Your task to perform on an android device: turn off airplane mode Image 0: 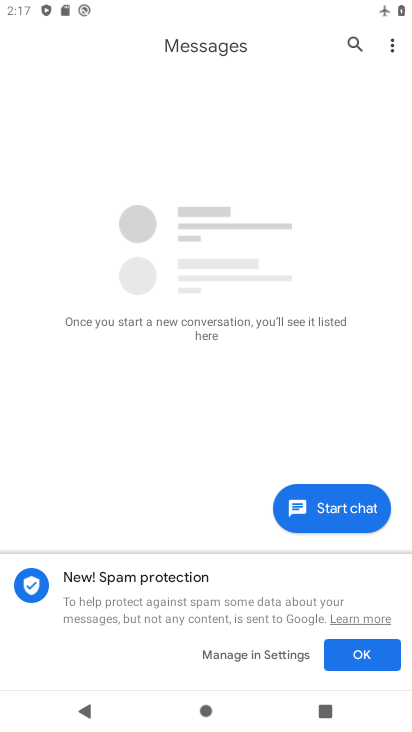
Step 0: press home button
Your task to perform on an android device: turn off airplane mode Image 1: 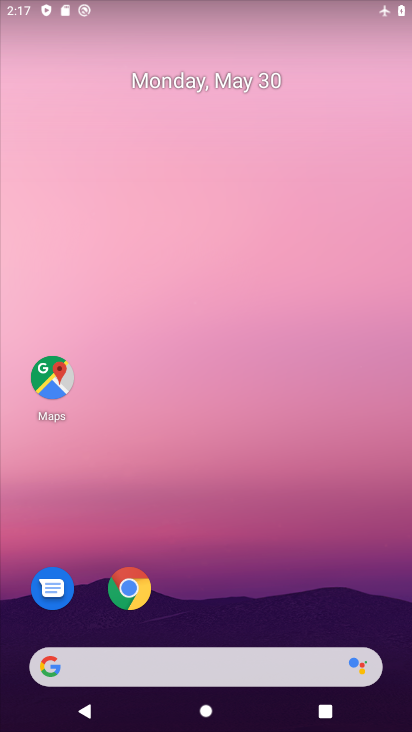
Step 1: drag from (190, 602) to (226, 277)
Your task to perform on an android device: turn off airplane mode Image 2: 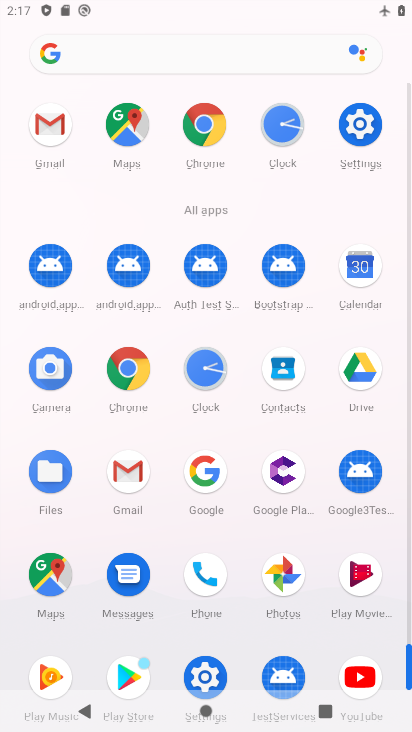
Step 2: click (354, 123)
Your task to perform on an android device: turn off airplane mode Image 3: 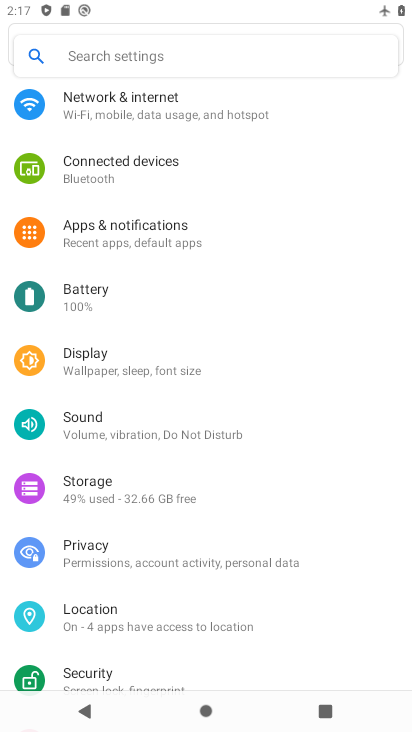
Step 3: click (144, 92)
Your task to perform on an android device: turn off airplane mode Image 4: 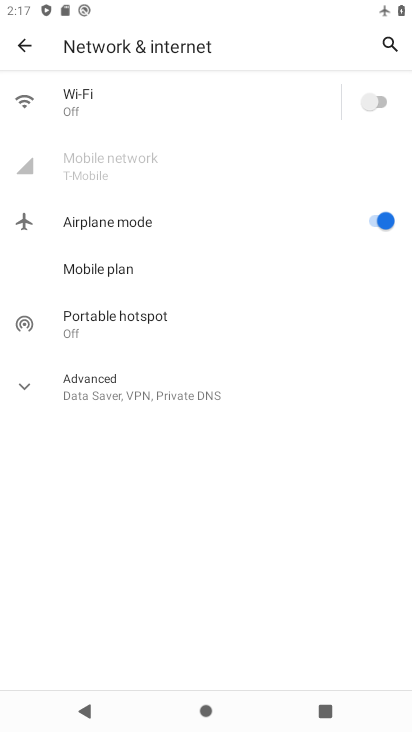
Step 4: click (371, 216)
Your task to perform on an android device: turn off airplane mode Image 5: 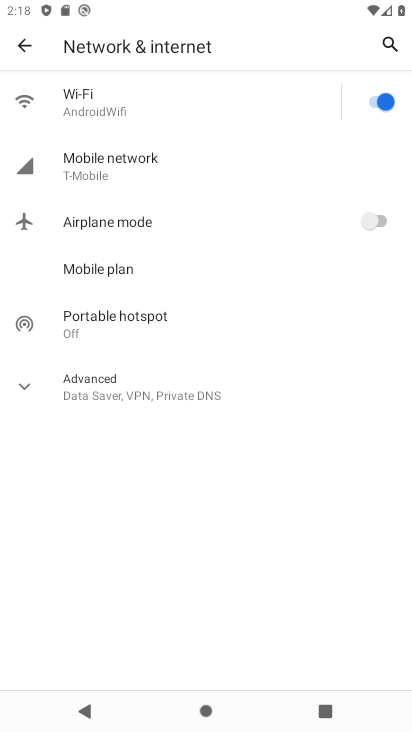
Step 5: task complete